Your task to perform on an android device: turn off airplane mode Image 0: 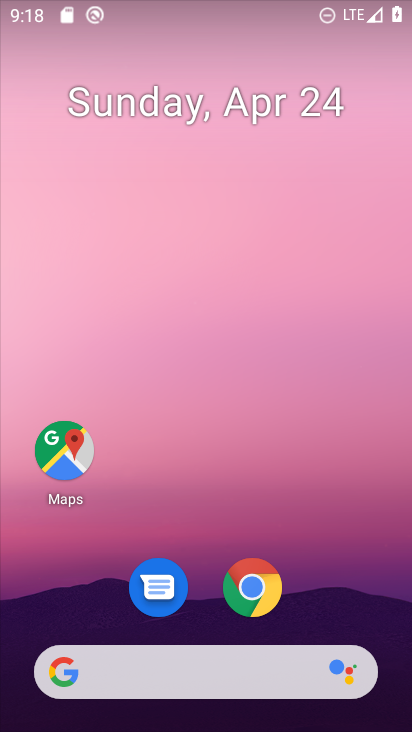
Step 0: drag from (367, 565) to (365, 141)
Your task to perform on an android device: turn off airplane mode Image 1: 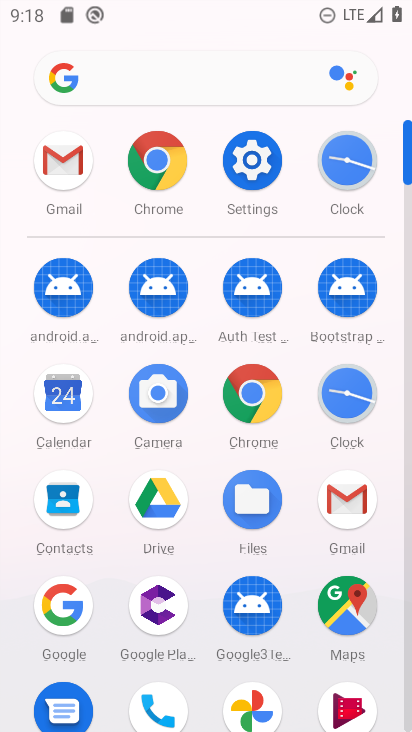
Step 1: drag from (307, 541) to (303, 222)
Your task to perform on an android device: turn off airplane mode Image 2: 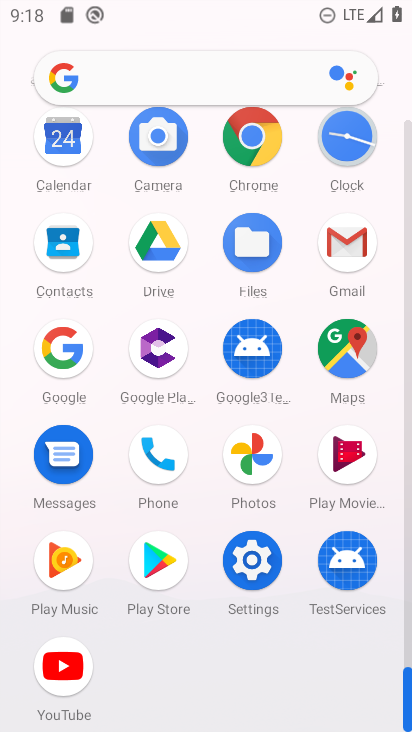
Step 2: click (261, 536)
Your task to perform on an android device: turn off airplane mode Image 3: 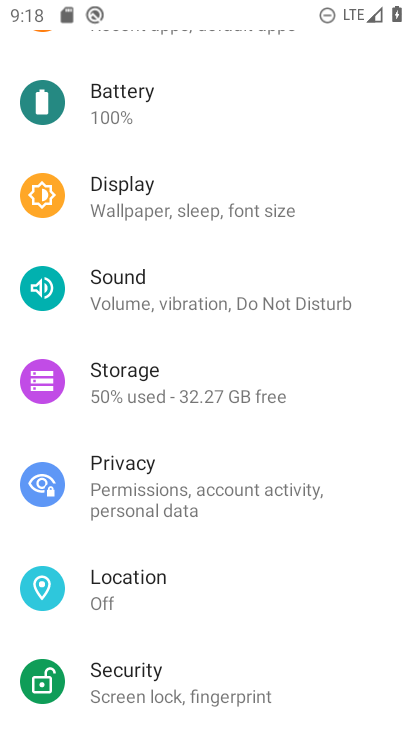
Step 3: drag from (253, 172) to (262, 610)
Your task to perform on an android device: turn off airplane mode Image 4: 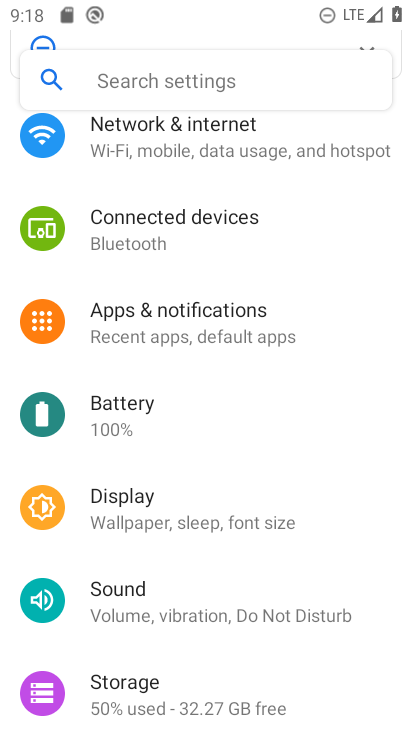
Step 4: click (269, 151)
Your task to perform on an android device: turn off airplane mode Image 5: 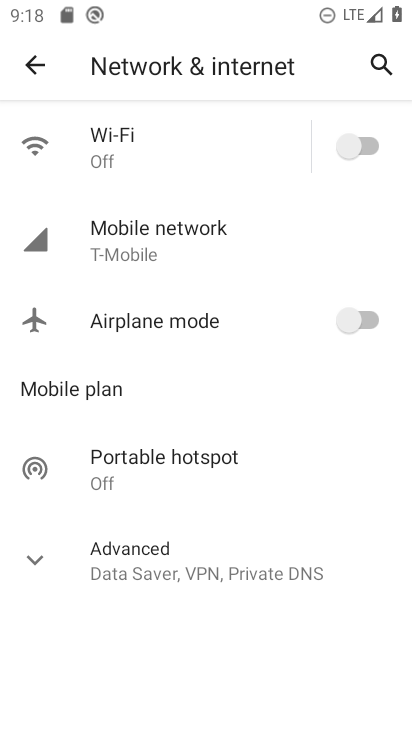
Step 5: task complete